Your task to perform on an android device: Add macbook air to the cart on target Image 0: 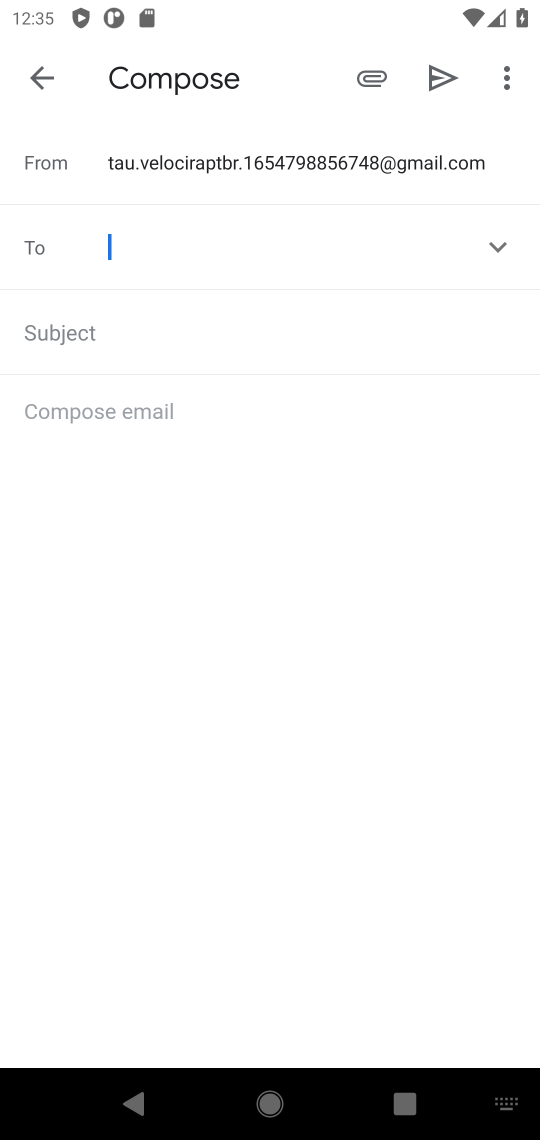
Step 0: press home button
Your task to perform on an android device: Add macbook air to the cart on target Image 1: 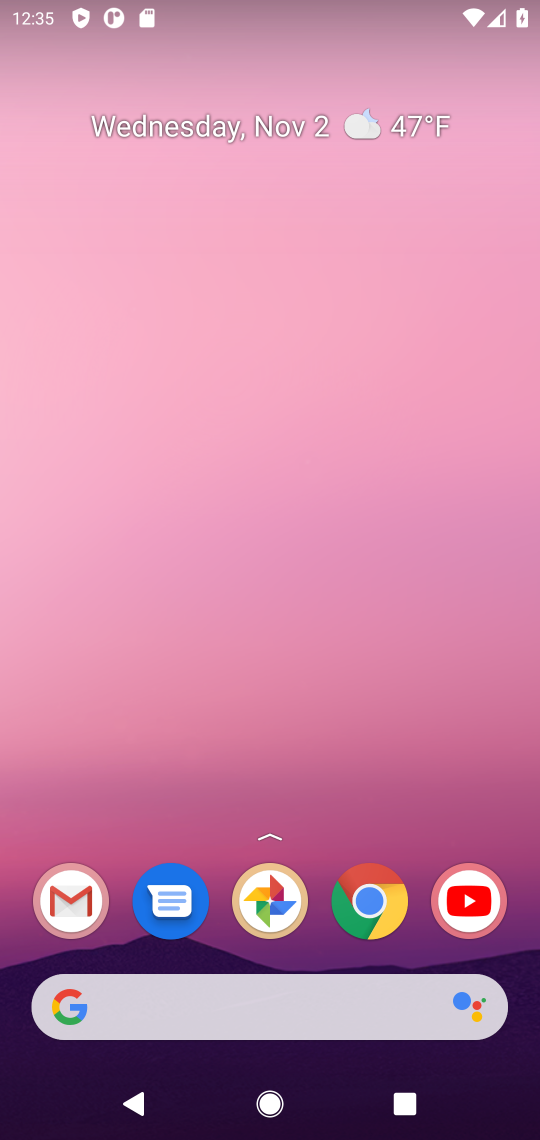
Step 1: drag from (278, 710) to (283, 110)
Your task to perform on an android device: Add macbook air to the cart on target Image 2: 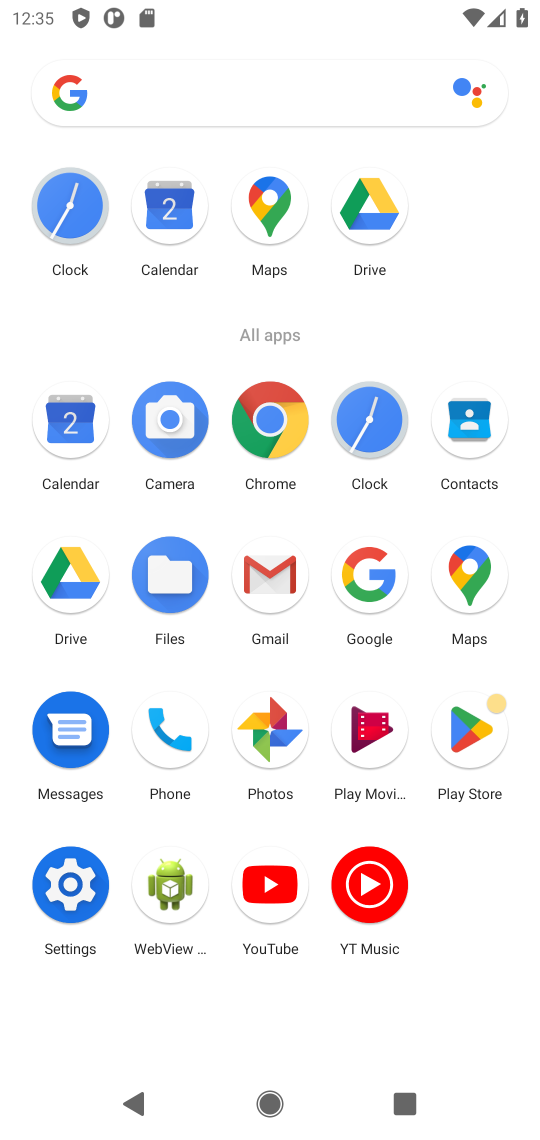
Step 2: click (276, 429)
Your task to perform on an android device: Add macbook air to the cart on target Image 3: 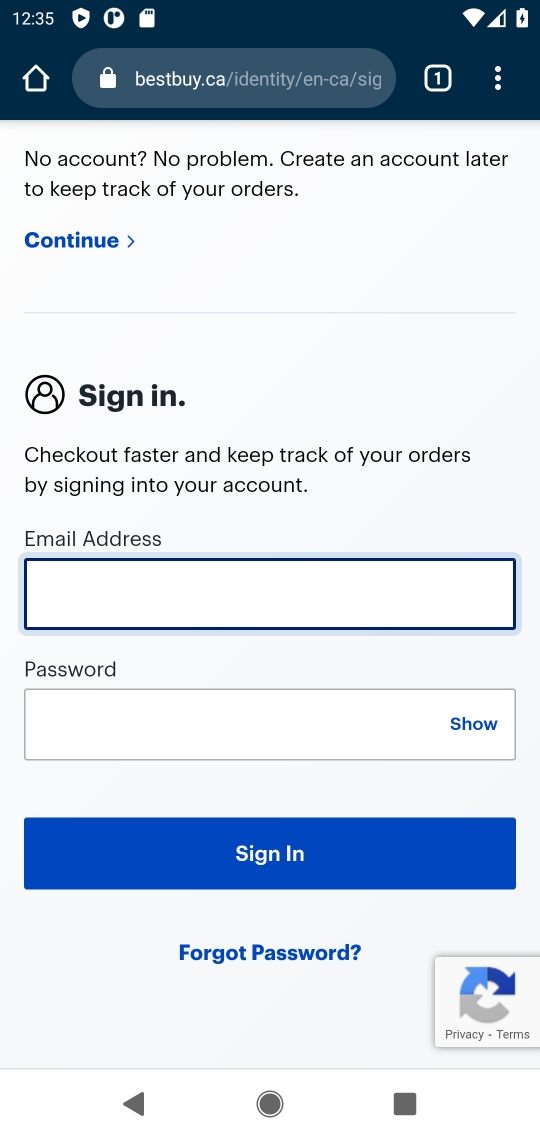
Step 3: click (301, 96)
Your task to perform on an android device: Add macbook air to the cart on target Image 4: 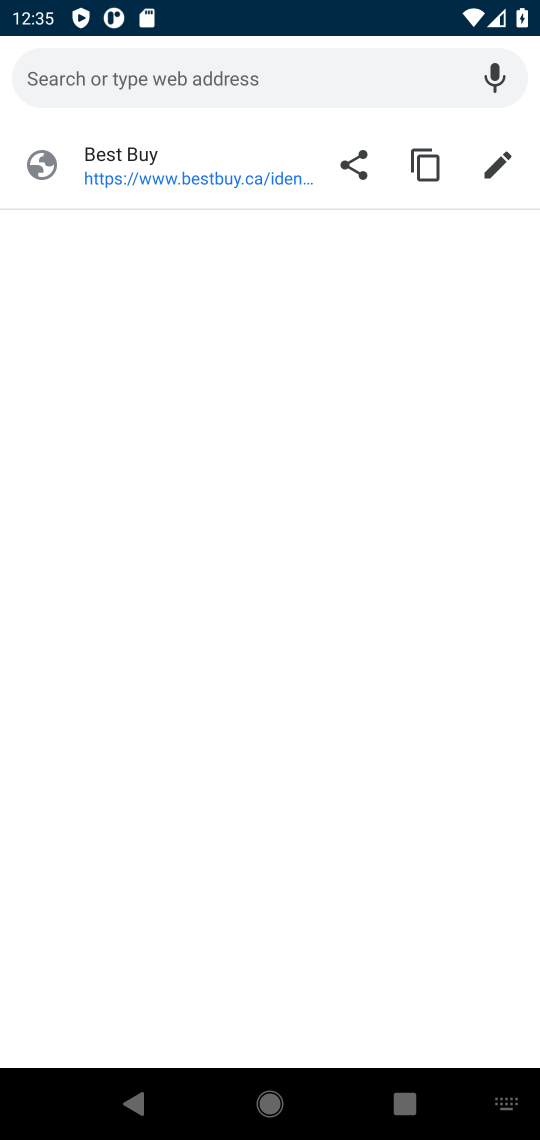
Step 4: type "target.com"
Your task to perform on an android device: Add macbook air to the cart on target Image 5: 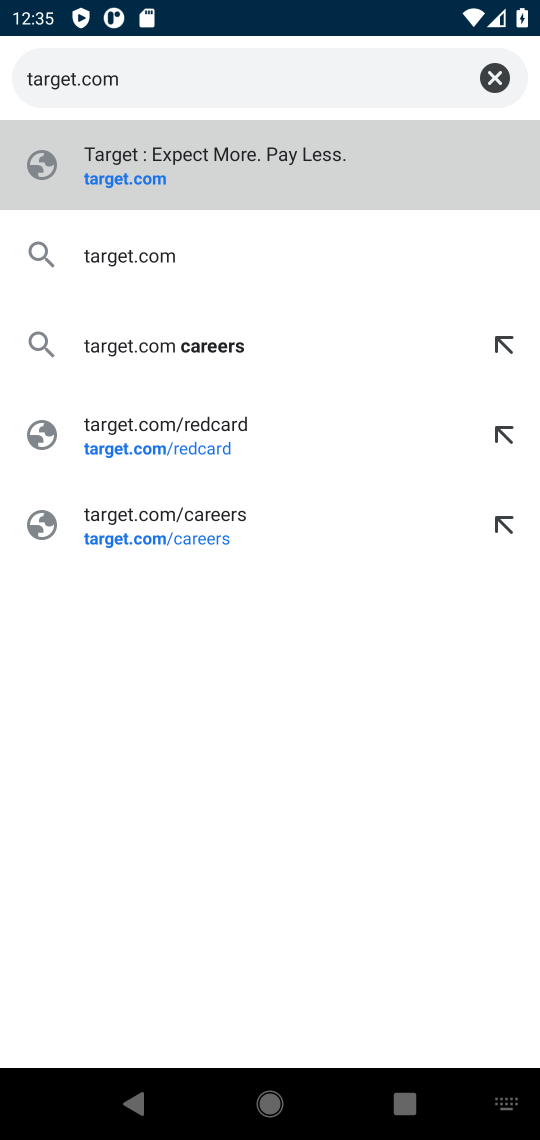
Step 5: press enter
Your task to perform on an android device: Add macbook air to the cart on target Image 6: 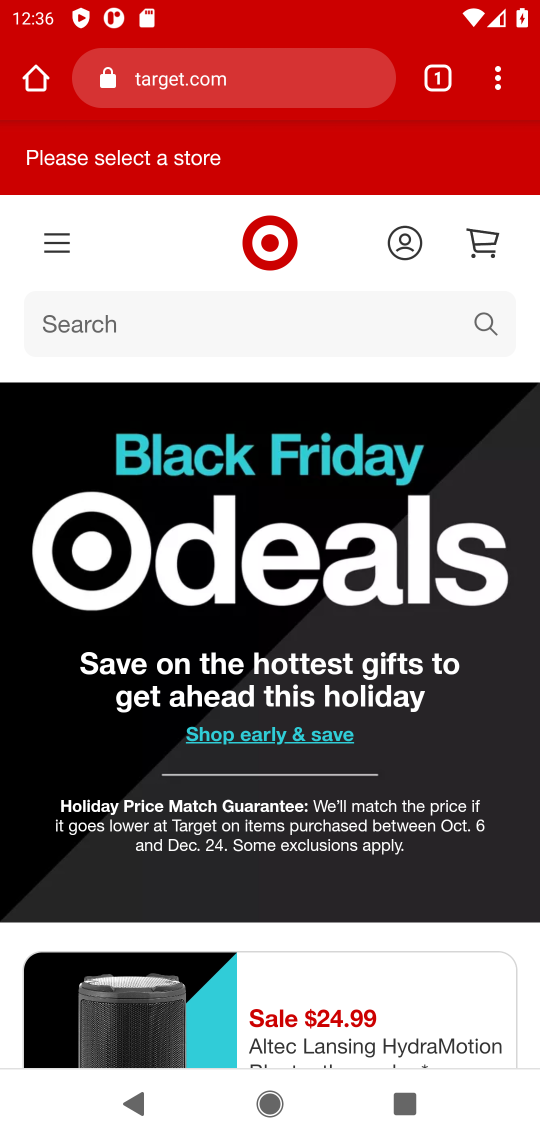
Step 6: click (395, 335)
Your task to perform on an android device: Add macbook air to the cart on target Image 7: 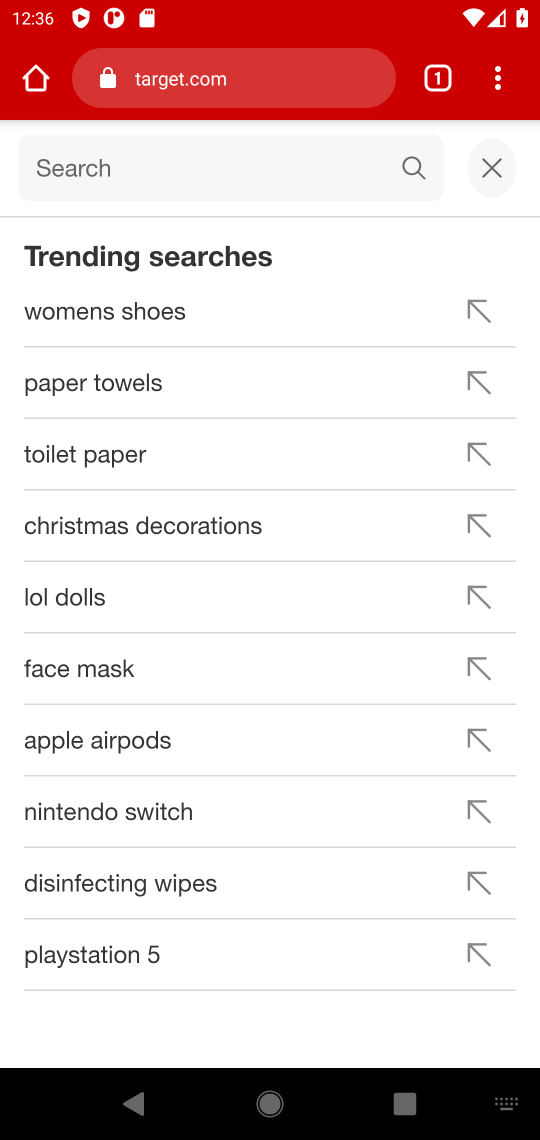
Step 7: type "macbook air"
Your task to perform on an android device: Add macbook air to the cart on target Image 8: 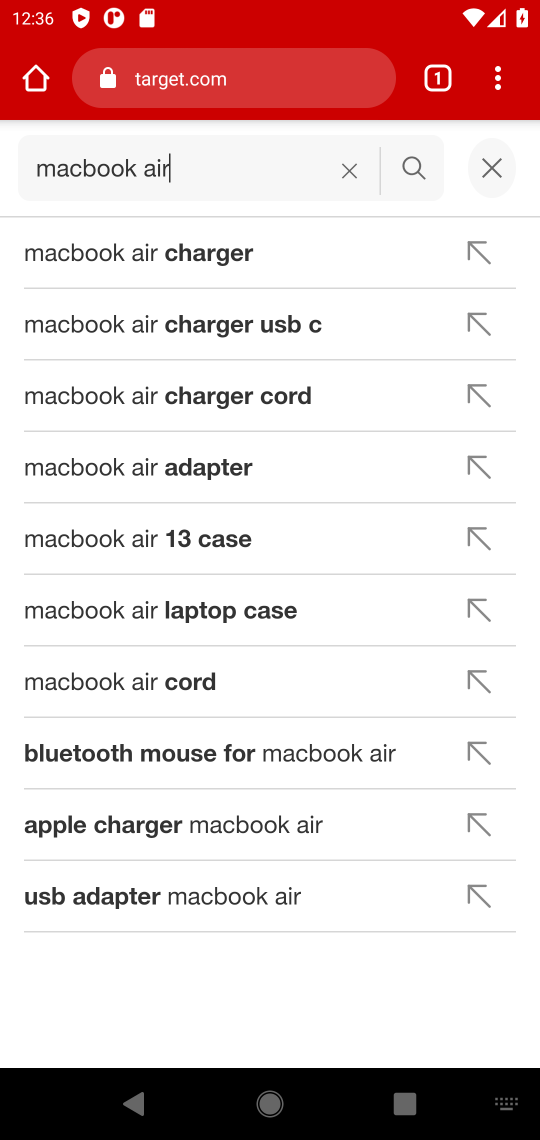
Step 8: press enter
Your task to perform on an android device: Add macbook air to the cart on target Image 9: 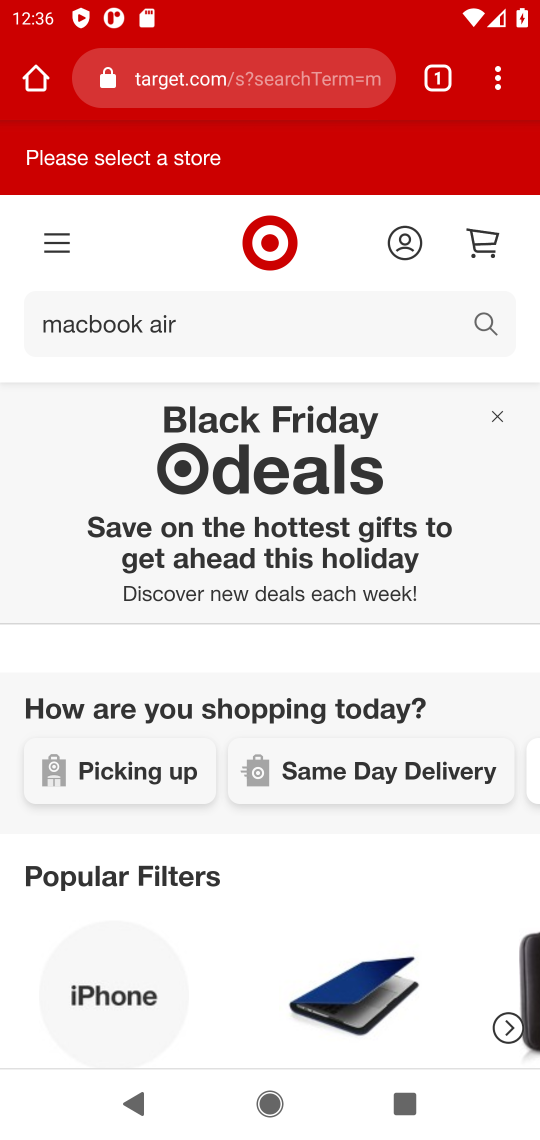
Step 9: task complete